Your task to perform on an android device: toggle show notifications on the lock screen Image 0: 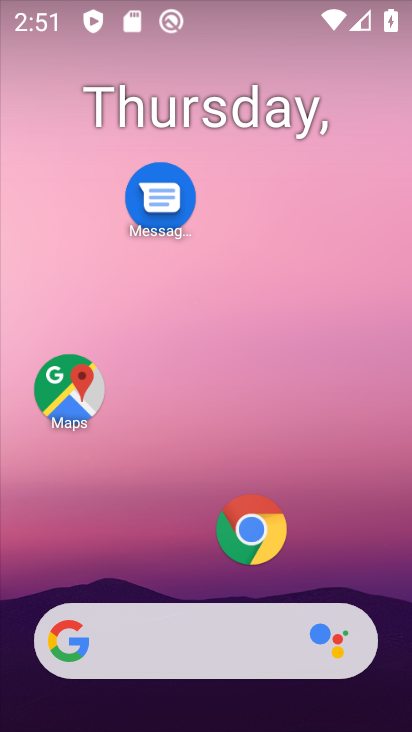
Step 0: drag from (166, 556) to (287, 137)
Your task to perform on an android device: toggle show notifications on the lock screen Image 1: 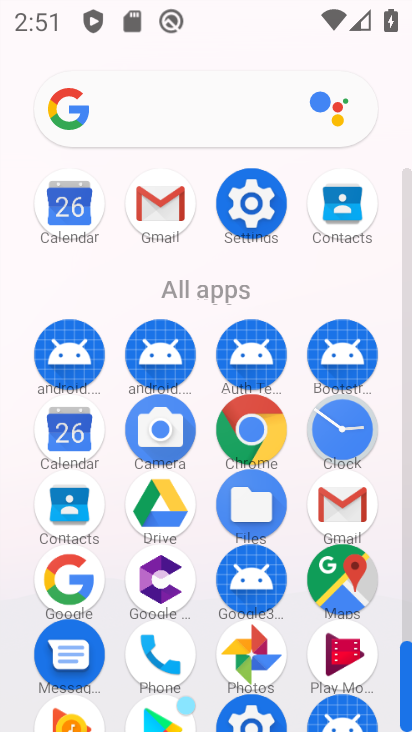
Step 1: click (253, 202)
Your task to perform on an android device: toggle show notifications on the lock screen Image 2: 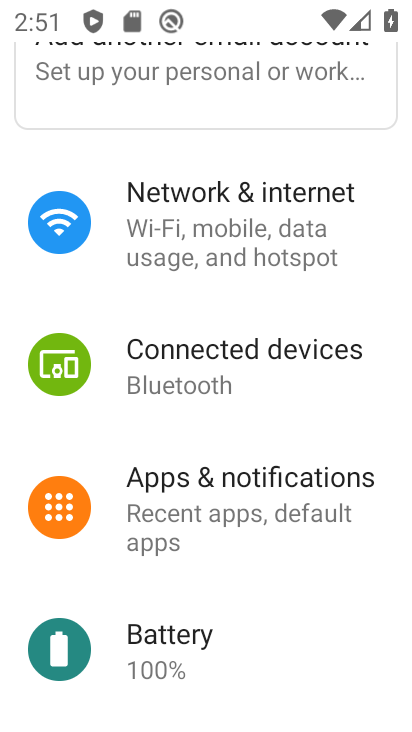
Step 2: click (264, 497)
Your task to perform on an android device: toggle show notifications on the lock screen Image 3: 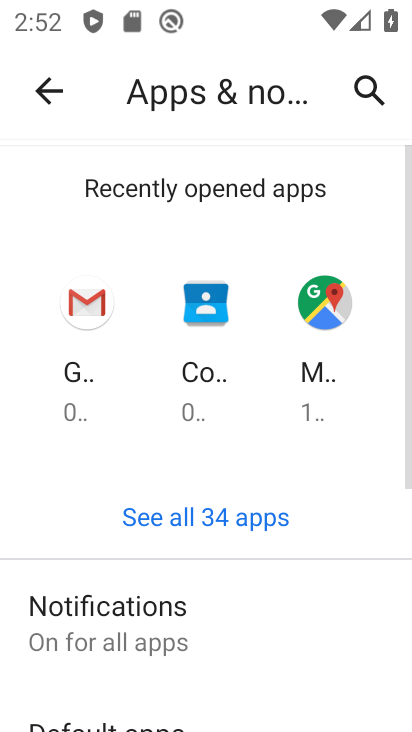
Step 3: click (147, 616)
Your task to perform on an android device: toggle show notifications on the lock screen Image 4: 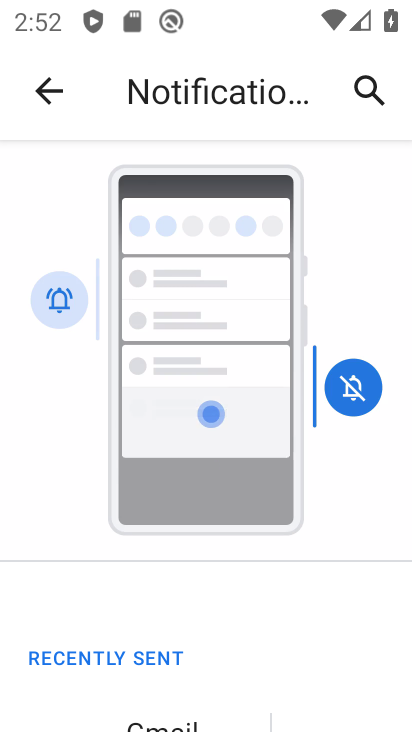
Step 4: drag from (214, 602) to (343, 123)
Your task to perform on an android device: toggle show notifications on the lock screen Image 5: 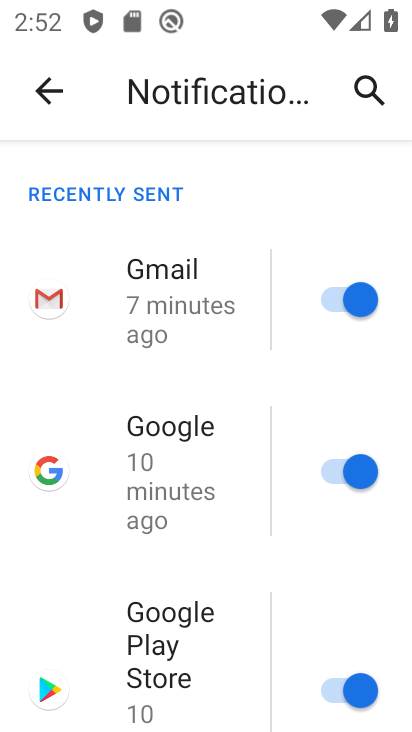
Step 5: drag from (241, 621) to (330, 166)
Your task to perform on an android device: toggle show notifications on the lock screen Image 6: 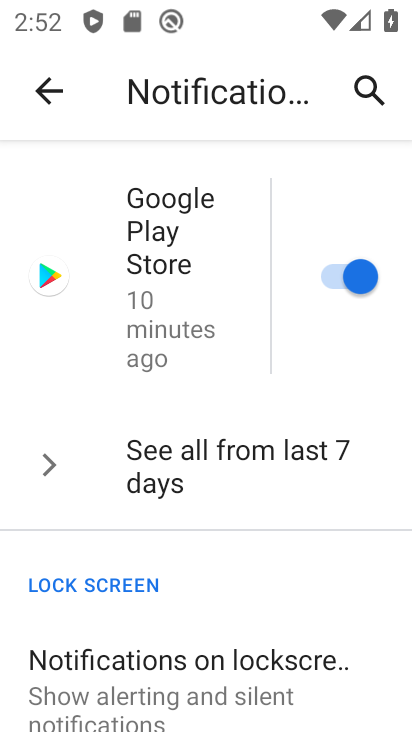
Step 6: click (183, 672)
Your task to perform on an android device: toggle show notifications on the lock screen Image 7: 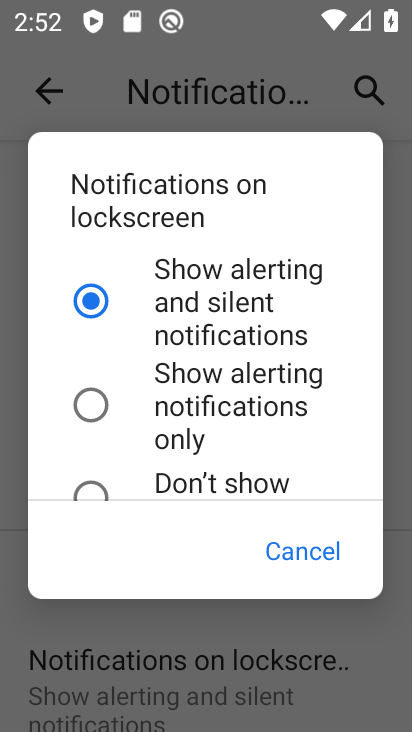
Step 7: click (92, 410)
Your task to perform on an android device: toggle show notifications on the lock screen Image 8: 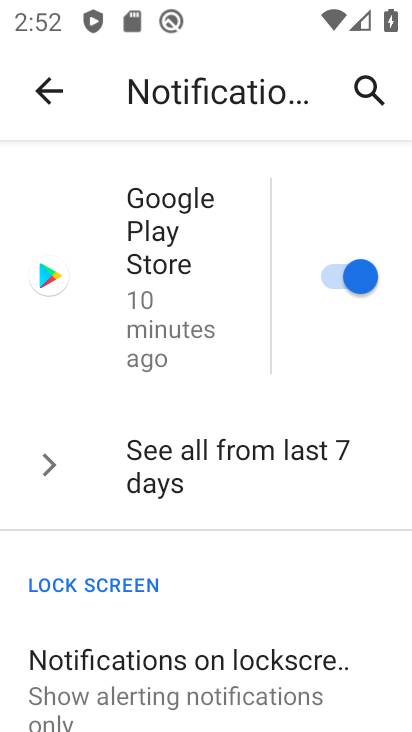
Step 8: task complete